Your task to perform on an android device: Go to location settings Image 0: 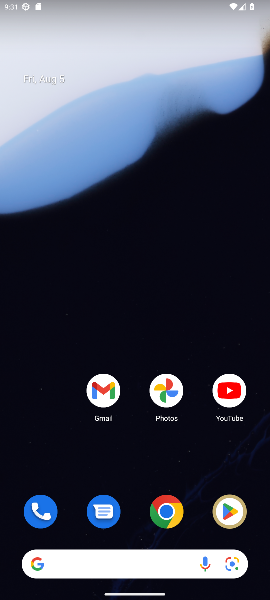
Step 0: drag from (127, 573) to (164, 313)
Your task to perform on an android device: Go to location settings Image 1: 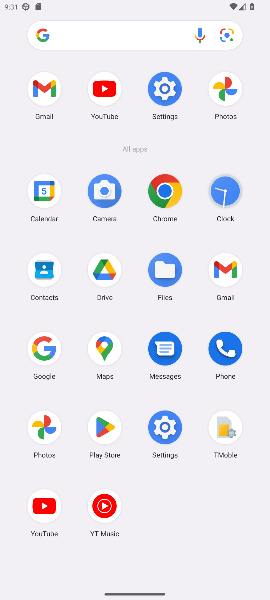
Step 1: click (164, 90)
Your task to perform on an android device: Go to location settings Image 2: 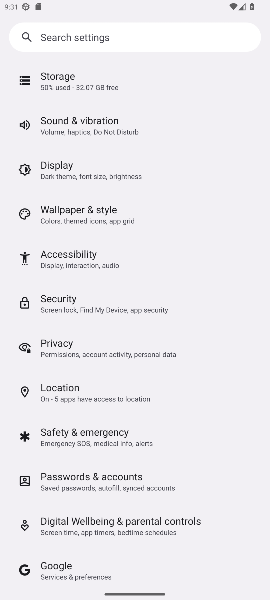
Step 2: drag from (75, 410) to (91, 315)
Your task to perform on an android device: Go to location settings Image 3: 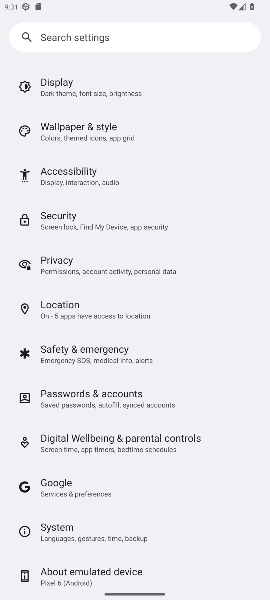
Step 3: drag from (89, 462) to (126, 357)
Your task to perform on an android device: Go to location settings Image 4: 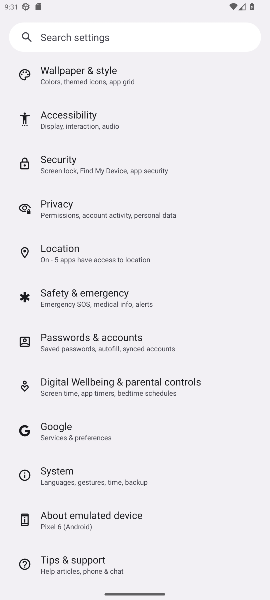
Step 4: drag from (81, 494) to (119, 407)
Your task to perform on an android device: Go to location settings Image 5: 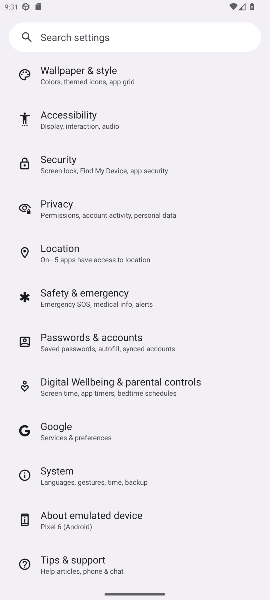
Step 5: click (98, 254)
Your task to perform on an android device: Go to location settings Image 6: 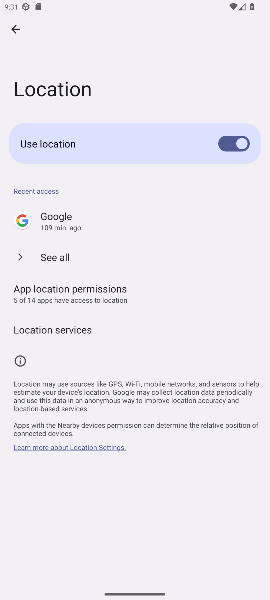
Step 6: task complete